Your task to perform on an android device: open chrome and create a bookmark for the current page Image 0: 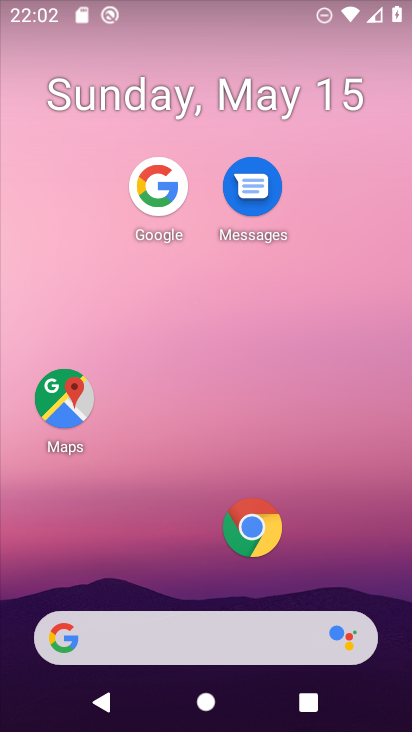
Step 0: click (258, 522)
Your task to perform on an android device: open chrome and create a bookmark for the current page Image 1: 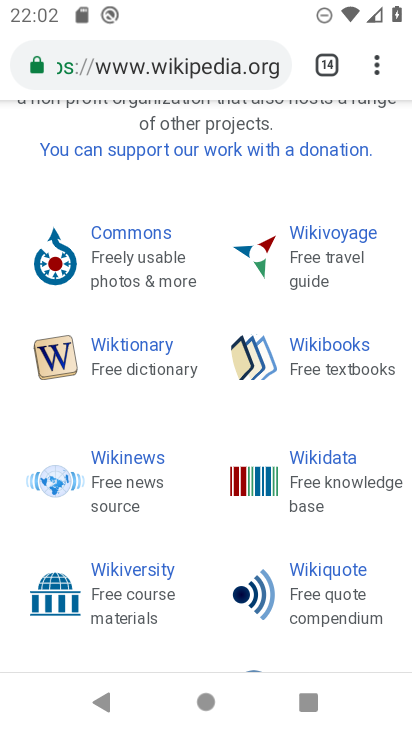
Step 1: click (371, 82)
Your task to perform on an android device: open chrome and create a bookmark for the current page Image 2: 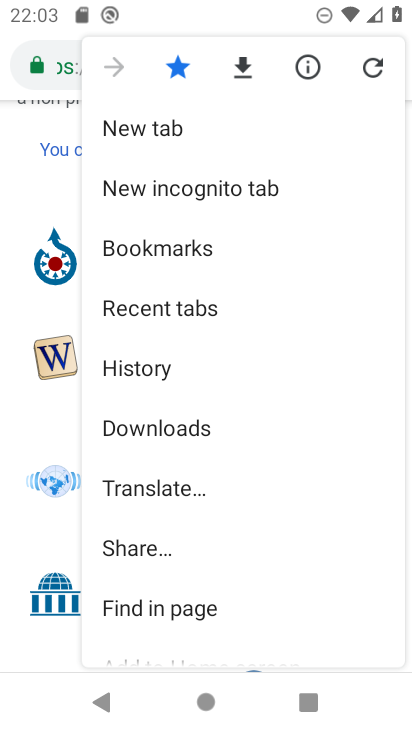
Step 2: task complete